Your task to perform on an android device: turn on improve location accuracy Image 0: 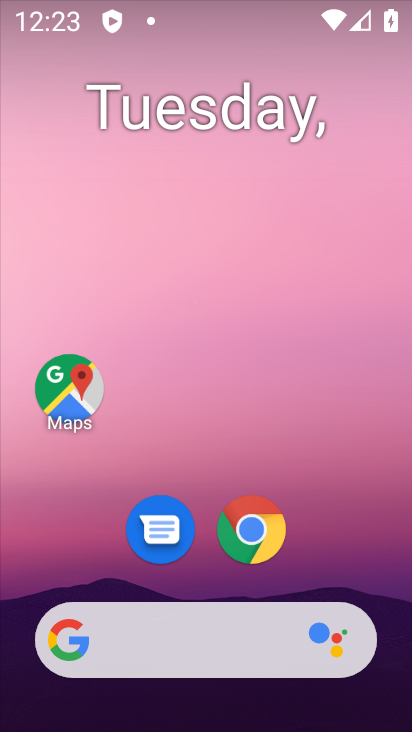
Step 0: drag from (358, 506) to (270, 23)
Your task to perform on an android device: turn on improve location accuracy Image 1: 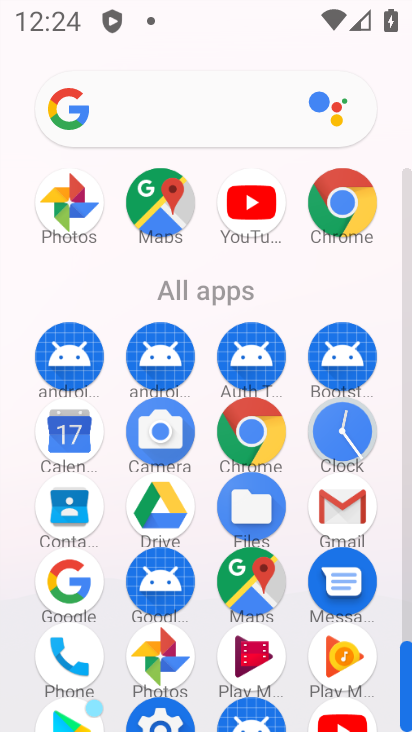
Step 1: drag from (401, 591) to (330, 173)
Your task to perform on an android device: turn on improve location accuracy Image 2: 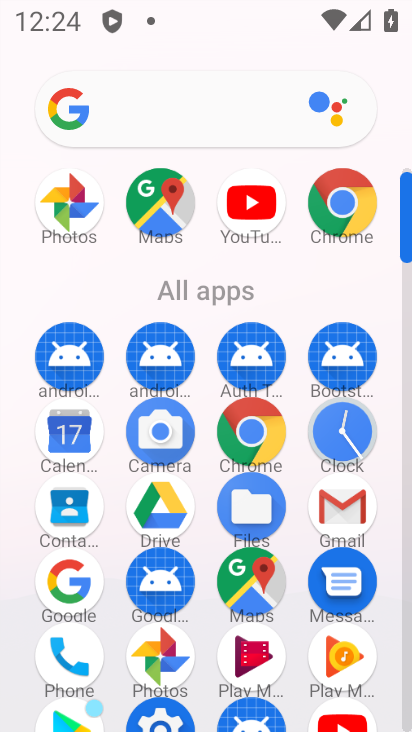
Step 2: drag from (394, 558) to (387, 163)
Your task to perform on an android device: turn on improve location accuracy Image 3: 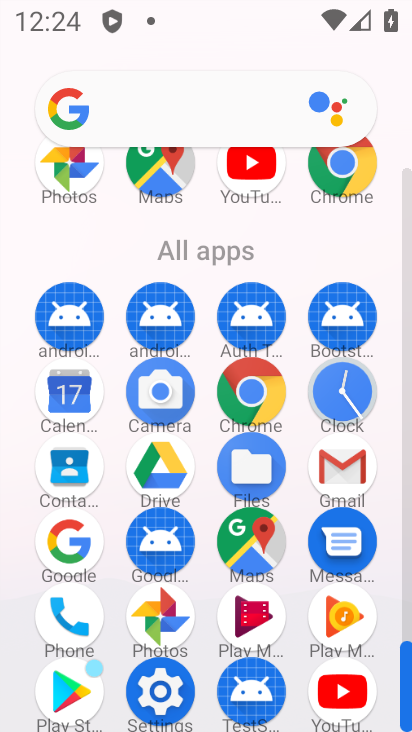
Step 3: click (169, 677)
Your task to perform on an android device: turn on improve location accuracy Image 4: 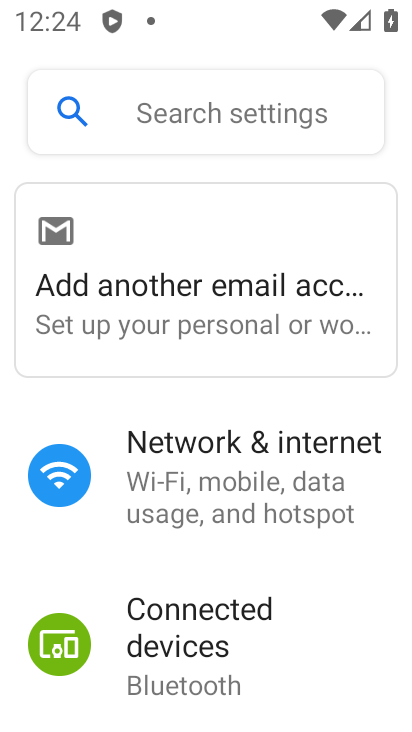
Step 4: drag from (295, 602) to (289, 127)
Your task to perform on an android device: turn on improve location accuracy Image 5: 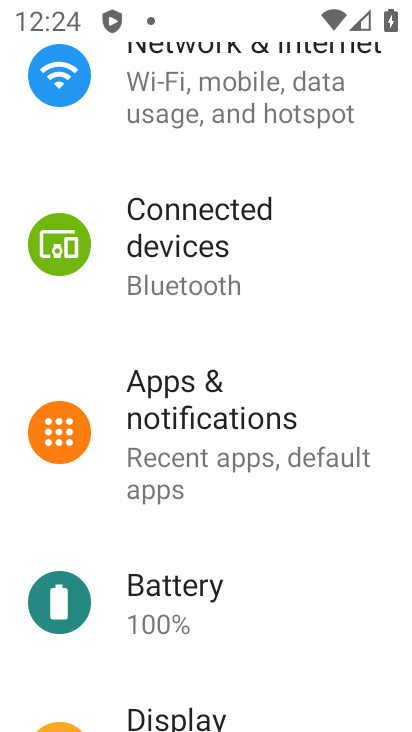
Step 5: drag from (223, 589) to (245, 171)
Your task to perform on an android device: turn on improve location accuracy Image 6: 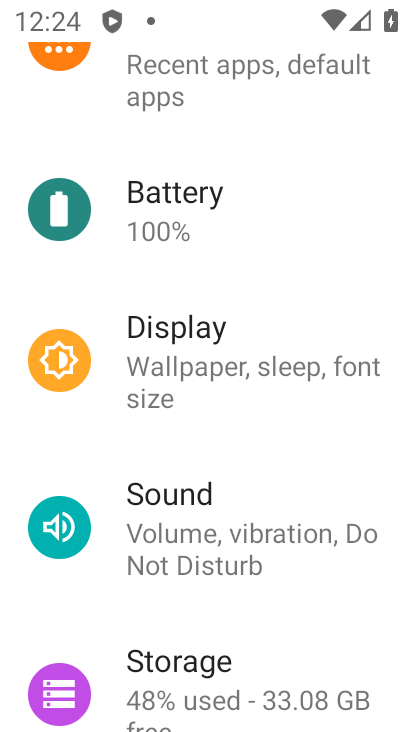
Step 6: drag from (200, 619) to (204, 155)
Your task to perform on an android device: turn on improve location accuracy Image 7: 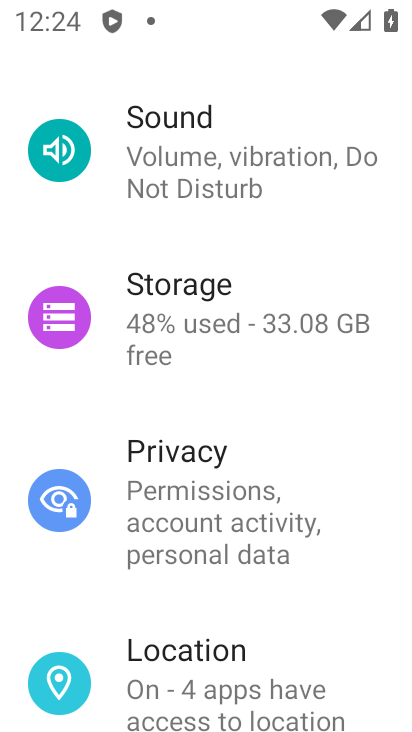
Step 7: click (169, 679)
Your task to perform on an android device: turn on improve location accuracy Image 8: 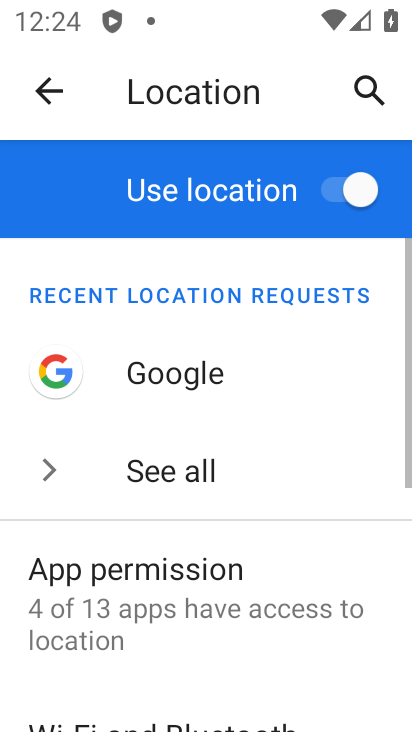
Step 8: drag from (248, 598) to (275, 208)
Your task to perform on an android device: turn on improve location accuracy Image 9: 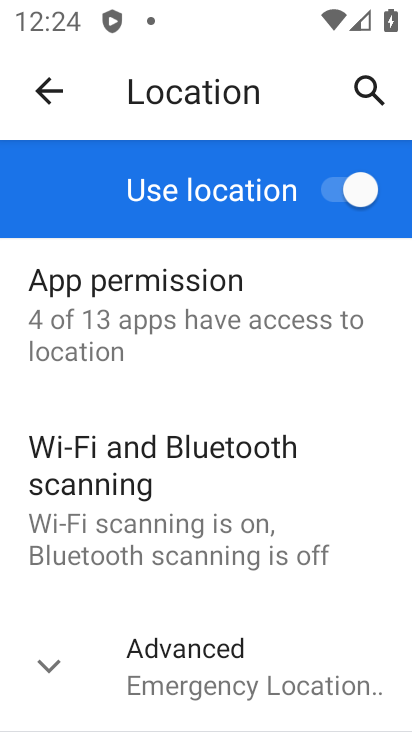
Step 9: drag from (204, 617) to (272, 235)
Your task to perform on an android device: turn on improve location accuracy Image 10: 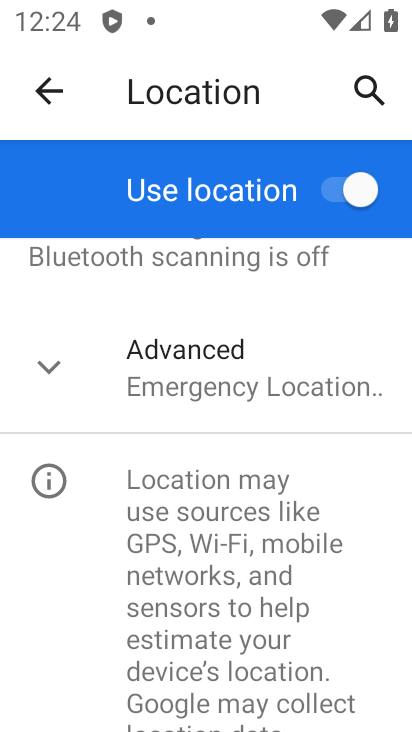
Step 10: click (219, 378)
Your task to perform on an android device: turn on improve location accuracy Image 11: 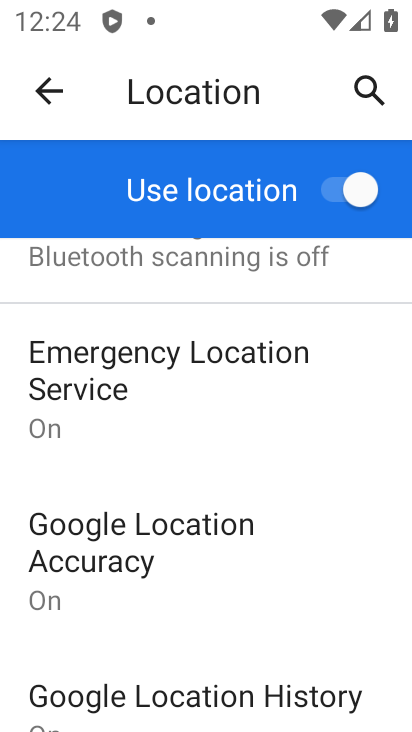
Step 11: click (128, 568)
Your task to perform on an android device: turn on improve location accuracy Image 12: 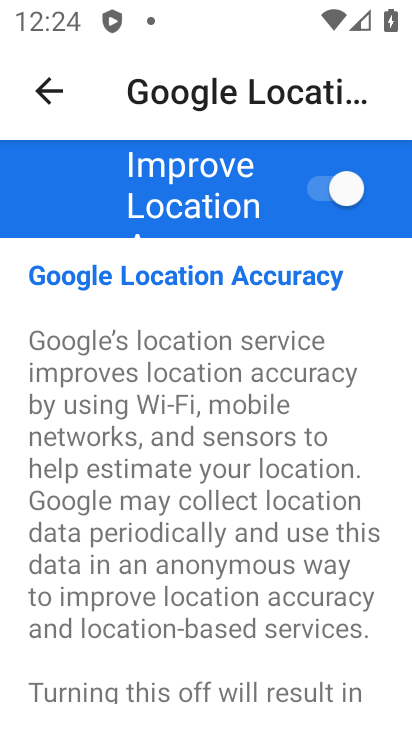
Step 12: task complete